Your task to perform on an android device: turn off wifi Image 0: 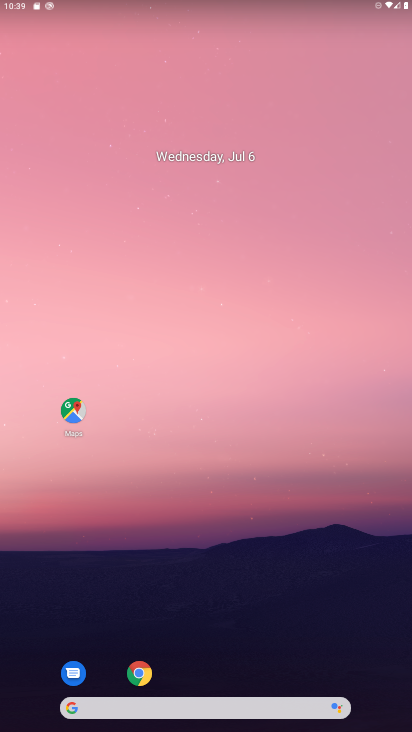
Step 0: drag from (257, 14) to (228, 615)
Your task to perform on an android device: turn off wifi Image 1: 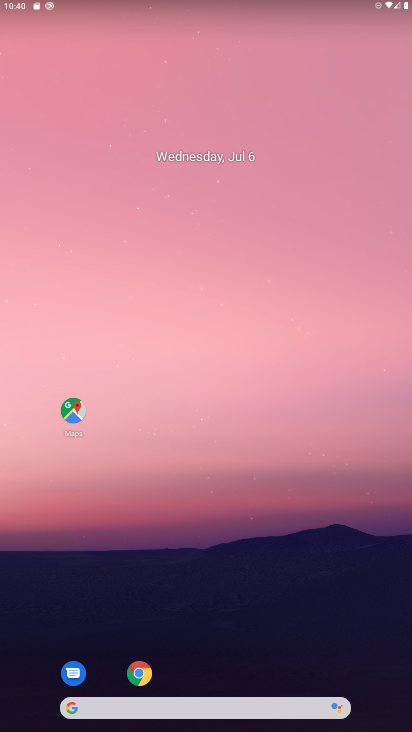
Step 1: drag from (79, 6) to (182, 548)
Your task to perform on an android device: turn off wifi Image 2: 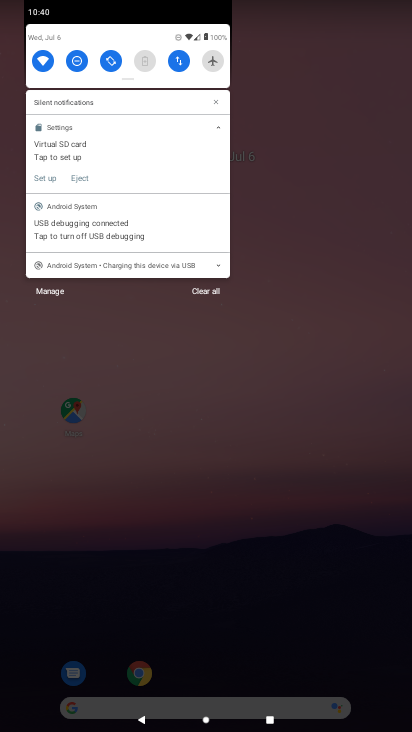
Step 2: click (46, 65)
Your task to perform on an android device: turn off wifi Image 3: 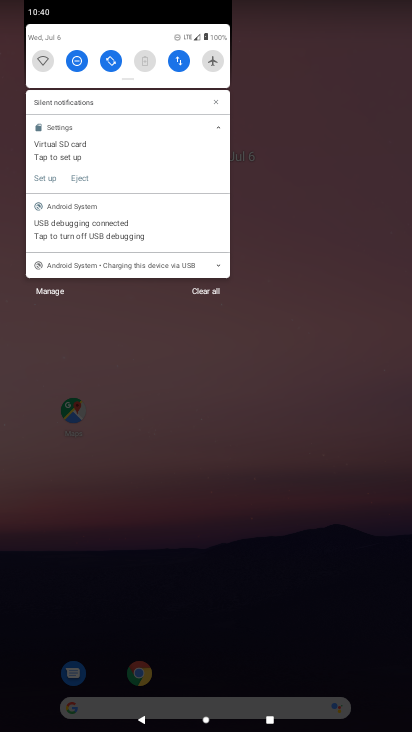
Step 3: task complete